Your task to perform on an android device: delete the emails in spam in the gmail app Image 0: 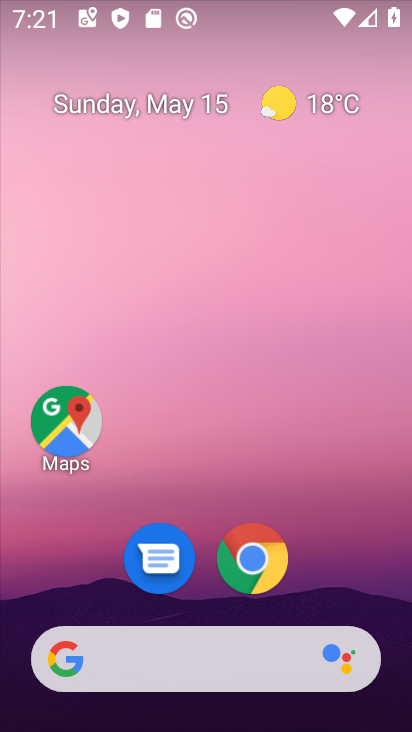
Step 0: press home button
Your task to perform on an android device: delete the emails in spam in the gmail app Image 1: 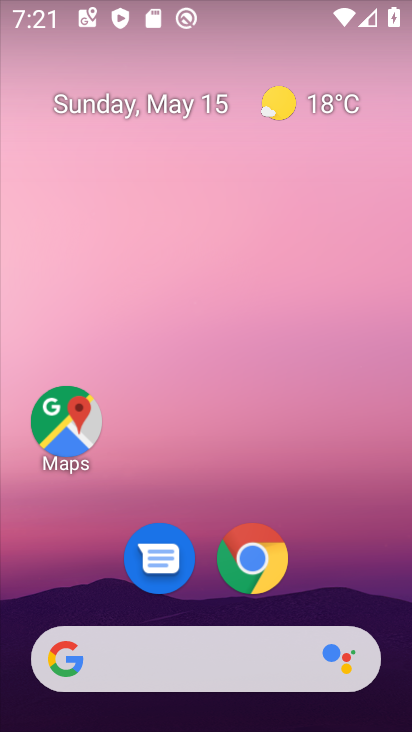
Step 1: drag from (206, 468) to (158, 17)
Your task to perform on an android device: delete the emails in spam in the gmail app Image 2: 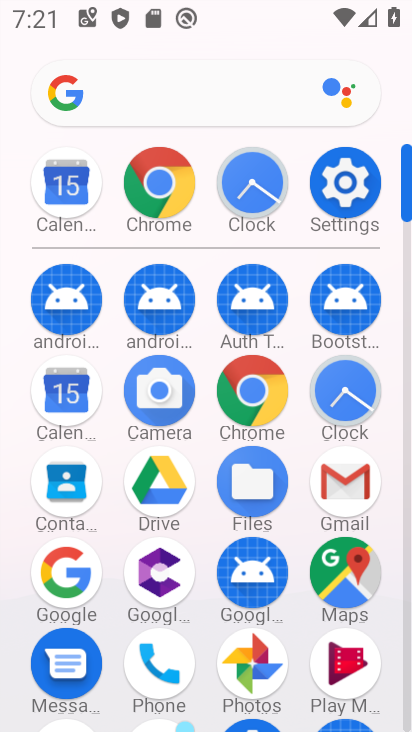
Step 2: click (345, 485)
Your task to perform on an android device: delete the emails in spam in the gmail app Image 3: 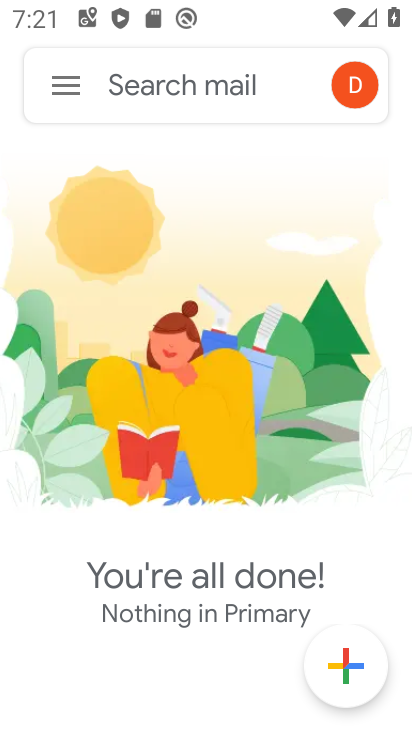
Step 3: click (65, 89)
Your task to perform on an android device: delete the emails in spam in the gmail app Image 4: 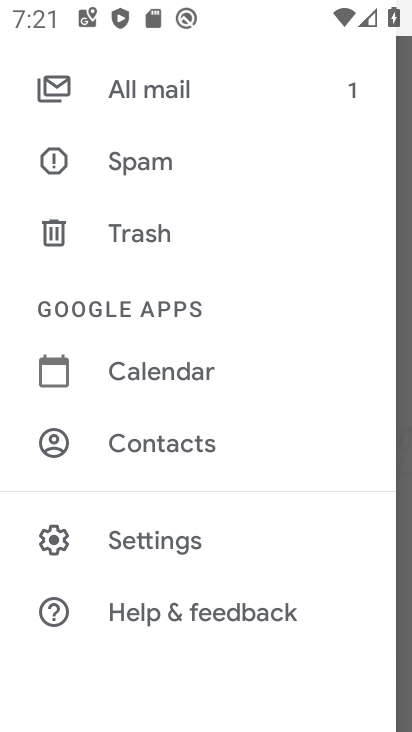
Step 4: click (143, 154)
Your task to perform on an android device: delete the emails in spam in the gmail app Image 5: 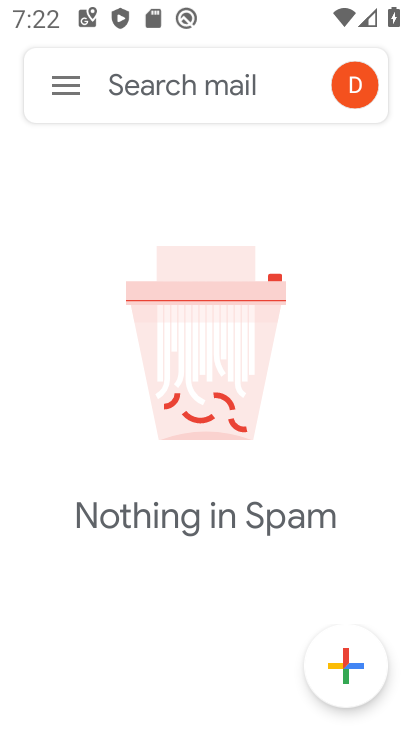
Step 5: task complete